Your task to perform on an android device: toggle priority inbox in the gmail app Image 0: 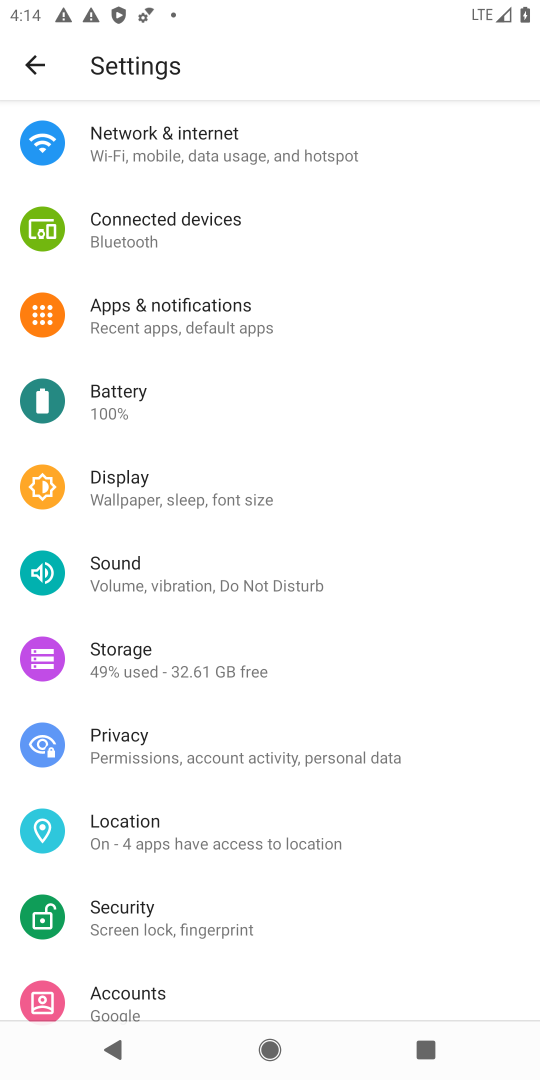
Step 0: drag from (154, 208) to (134, 1018)
Your task to perform on an android device: toggle priority inbox in the gmail app Image 1: 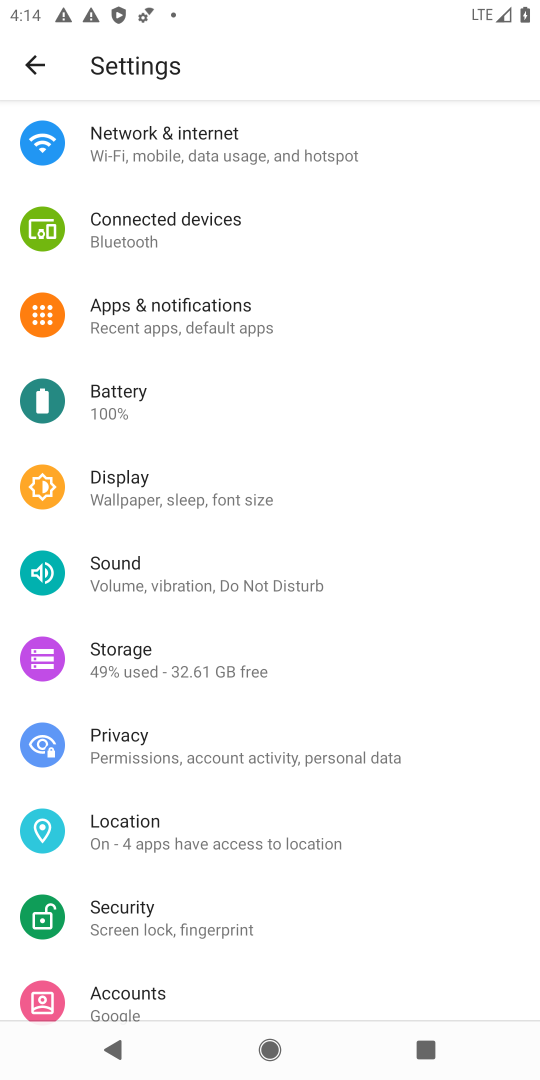
Step 1: press home button
Your task to perform on an android device: toggle priority inbox in the gmail app Image 2: 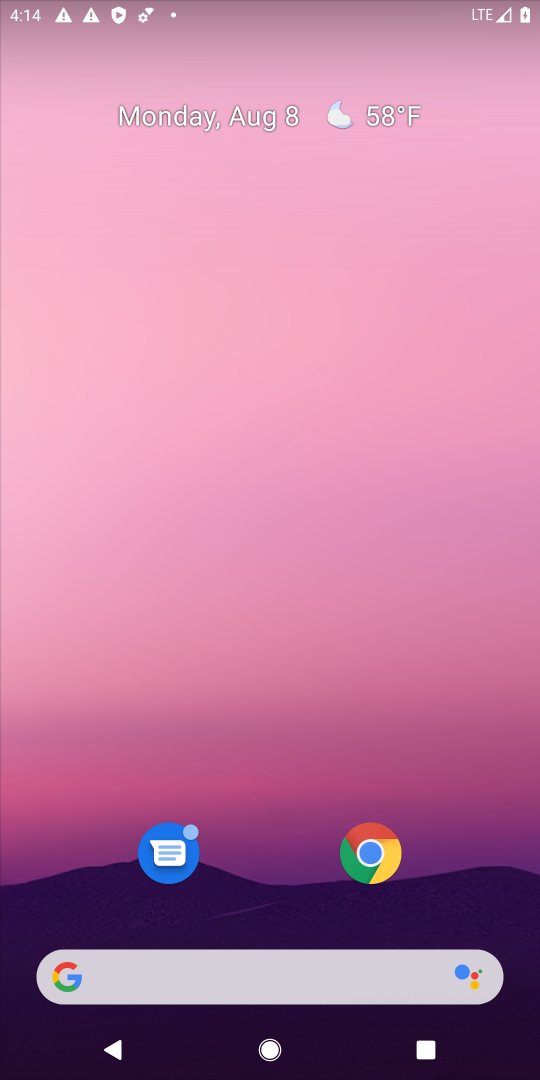
Step 2: drag from (435, 886) to (374, 121)
Your task to perform on an android device: toggle priority inbox in the gmail app Image 3: 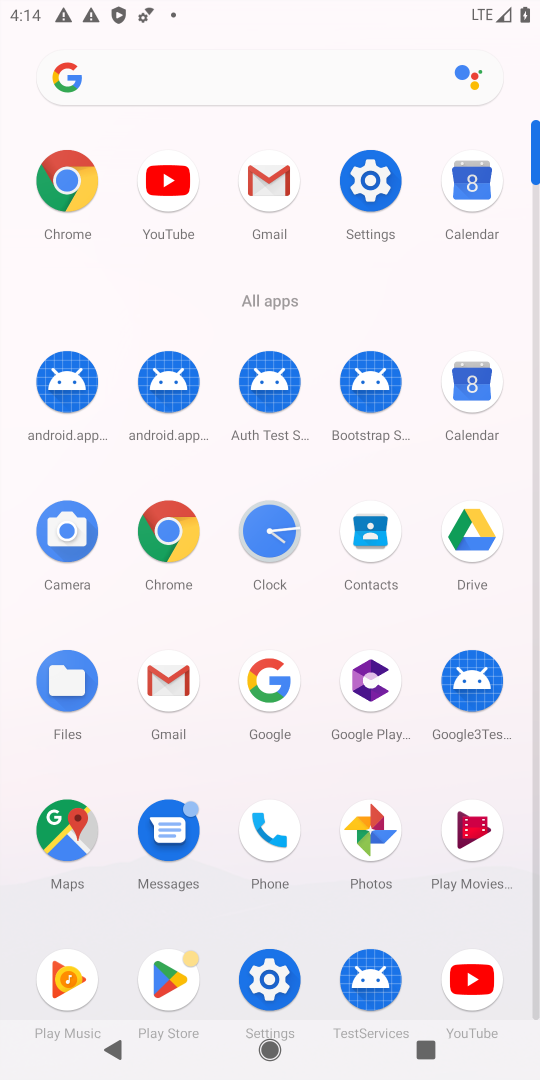
Step 3: click (159, 681)
Your task to perform on an android device: toggle priority inbox in the gmail app Image 4: 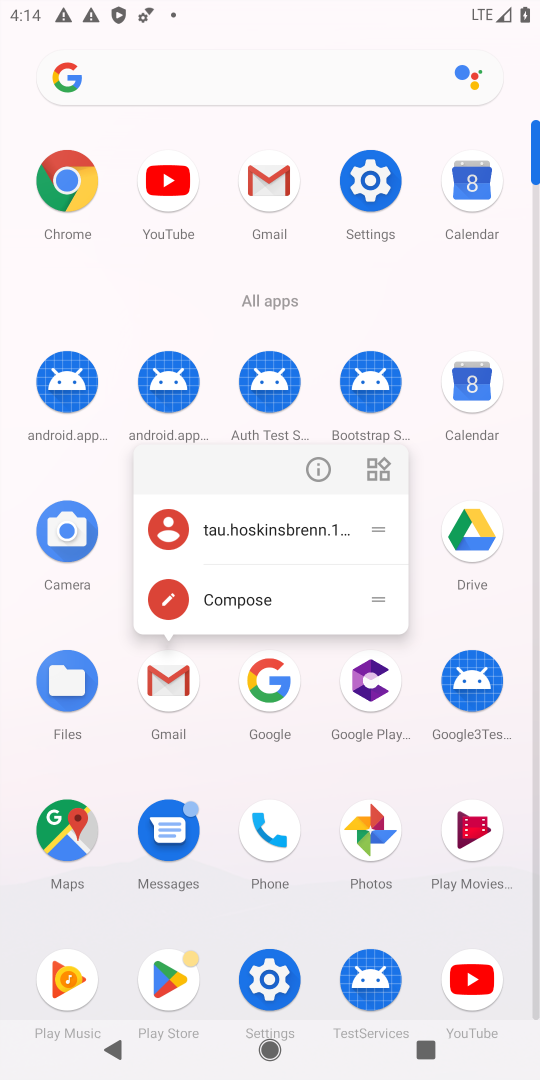
Step 4: click (161, 673)
Your task to perform on an android device: toggle priority inbox in the gmail app Image 5: 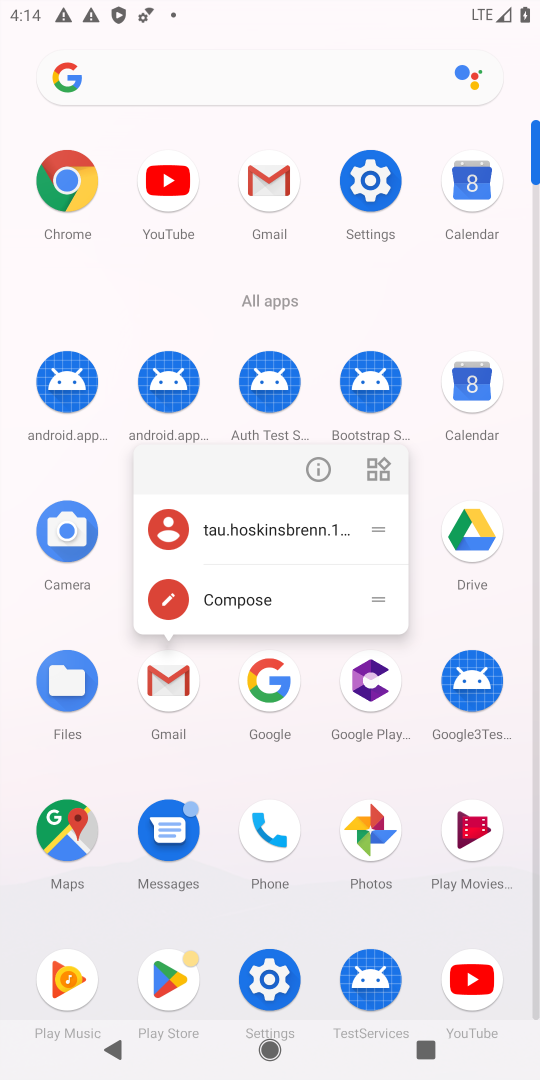
Step 5: click (161, 673)
Your task to perform on an android device: toggle priority inbox in the gmail app Image 6: 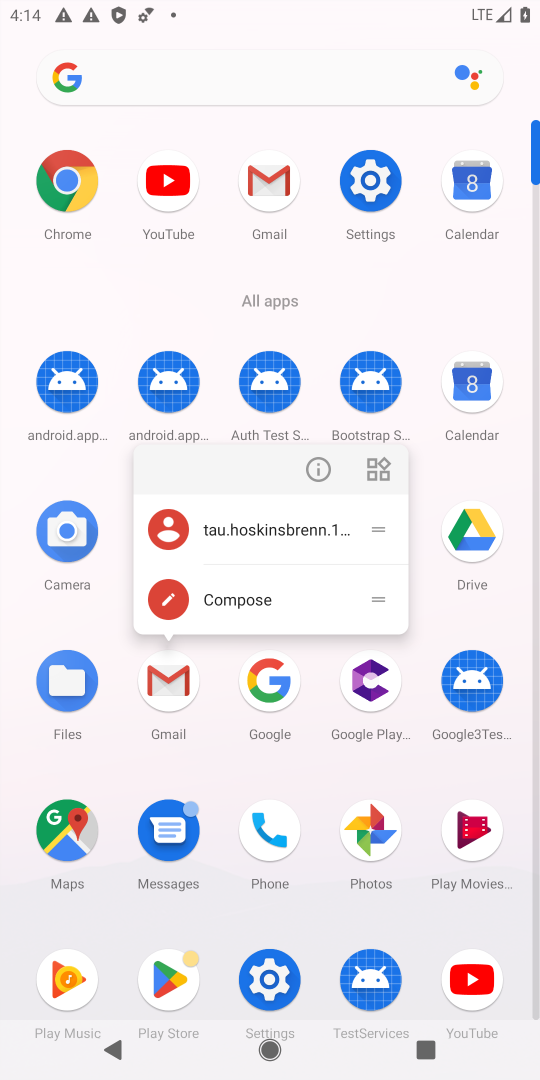
Step 6: click (161, 673)
Your task to perform on an android device: toggle priority inbox in the gmail app Image 7: 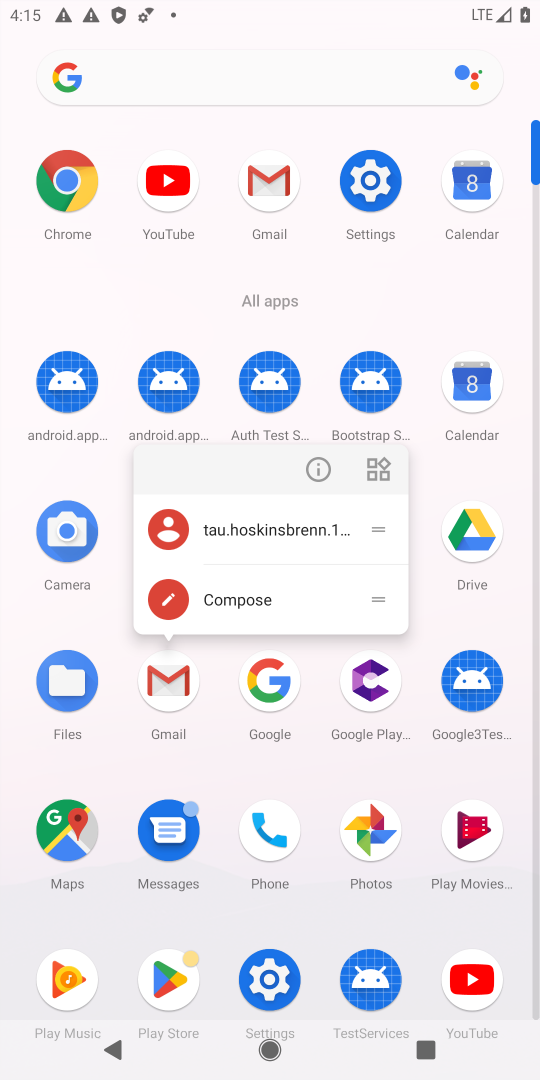
Step 7: click (161, 673)
Your task to perform on an android device: toggle priority inbox in the gmail app Image 8: 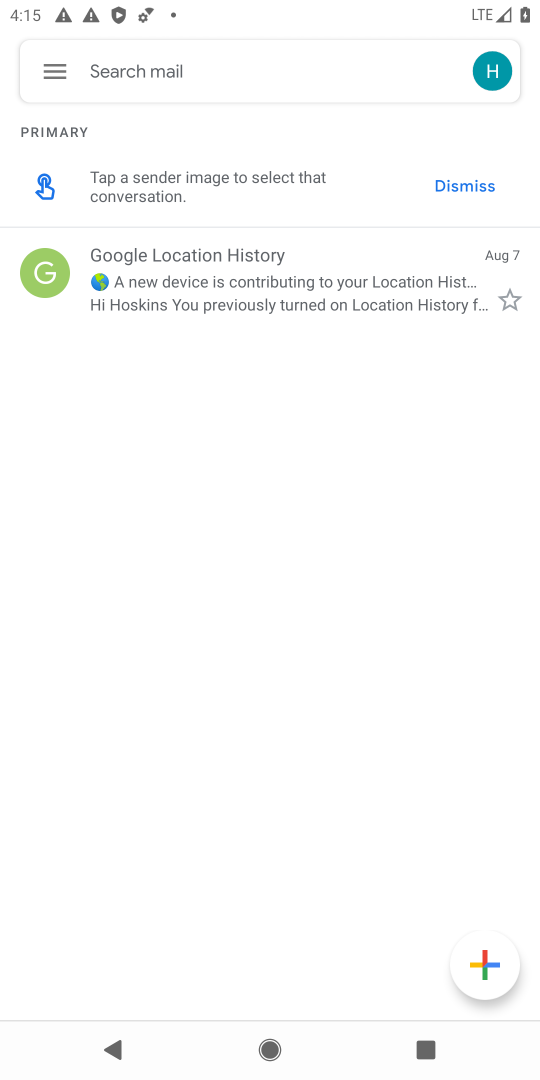
Step 8: click (56, 66)
Your task to perform on an android device: toggle priority inbox in the gmail app Image 9: 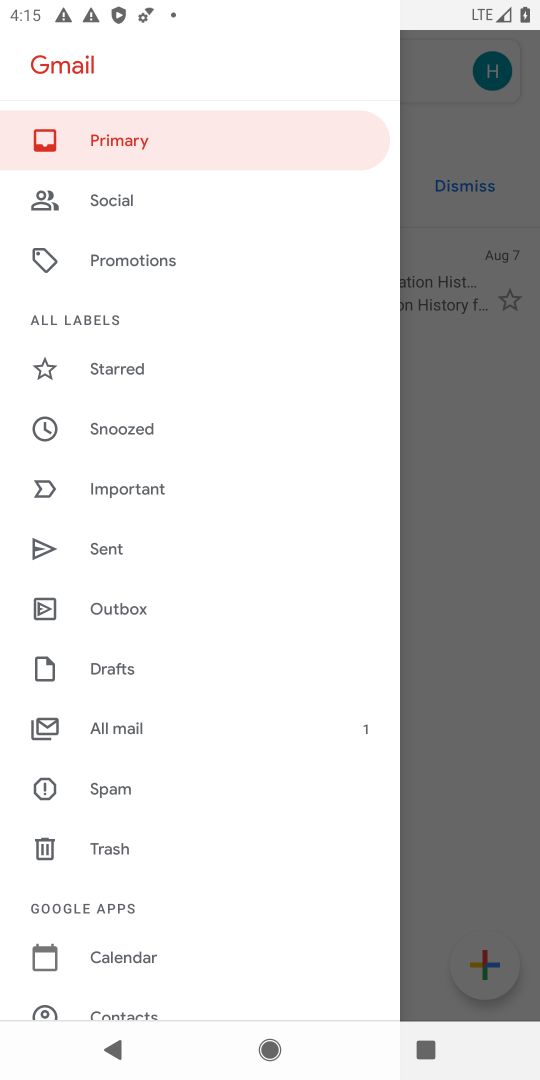
Step 9: drag from (146, 952) to (201, 408)
Your task to perform on an android device: toggle priority inbox in the gmail app Image 10: 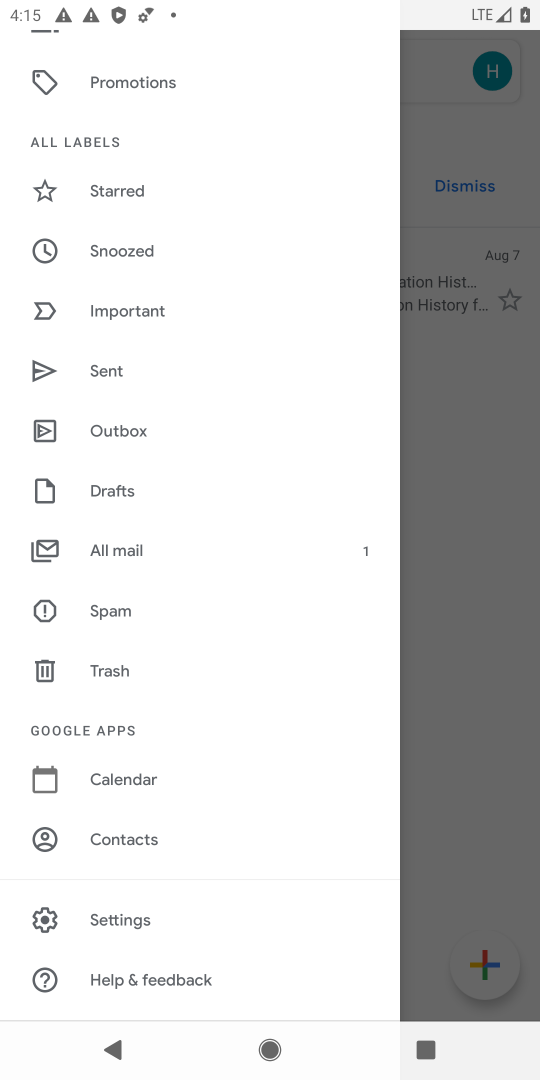
Step 10: click (104, 955)
Your task to perform on an android device: toggle priority inbox in the gmail app Image 11: 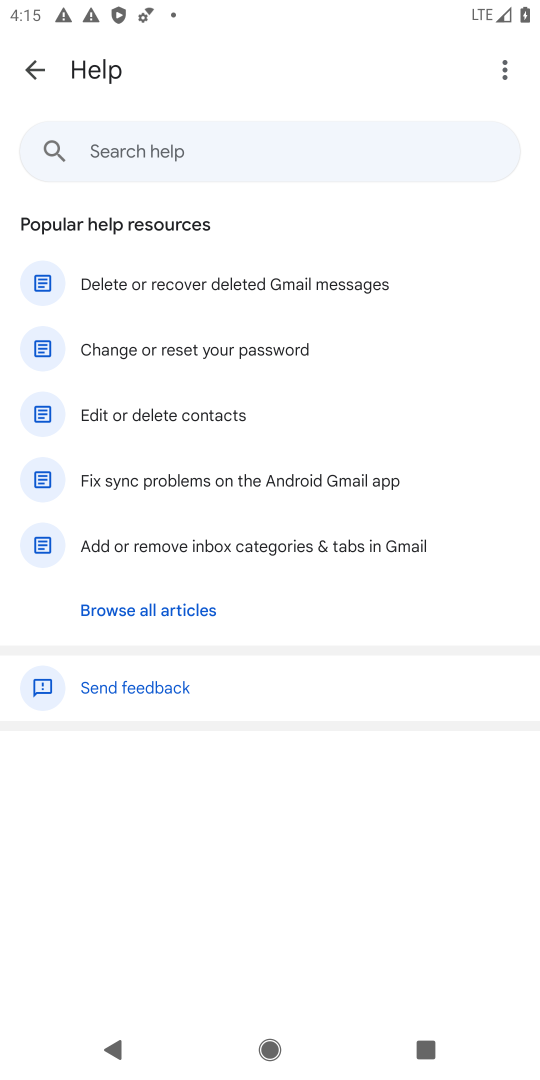
Step 11: click (46, 61)
Your task to perform on an android device: toggle priority inbox in the gmail app Image 12: 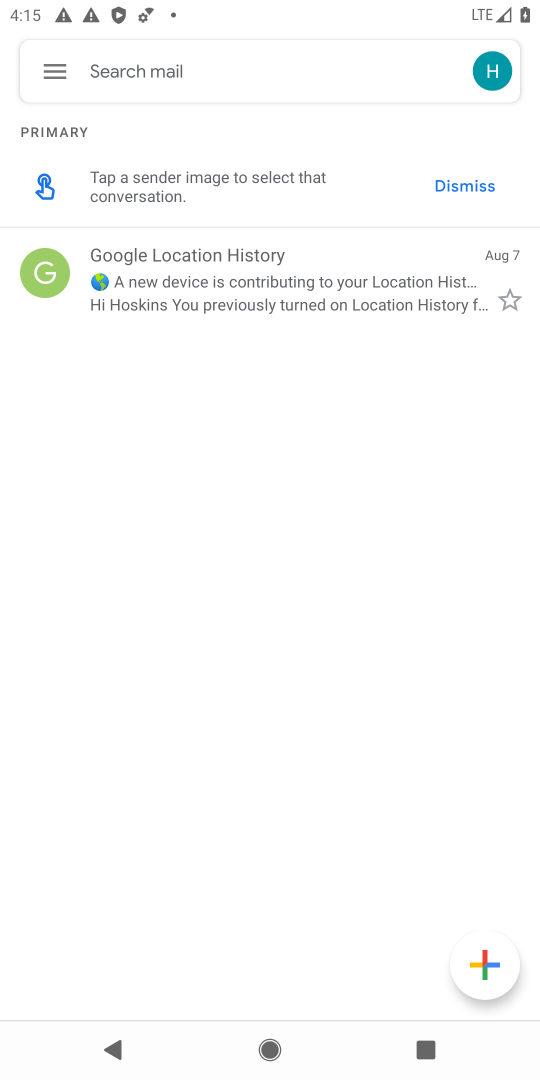
Step 12: click (65, 59)
Your task to perform on an android device: toggle priority inbox in the gmail app Image 13: 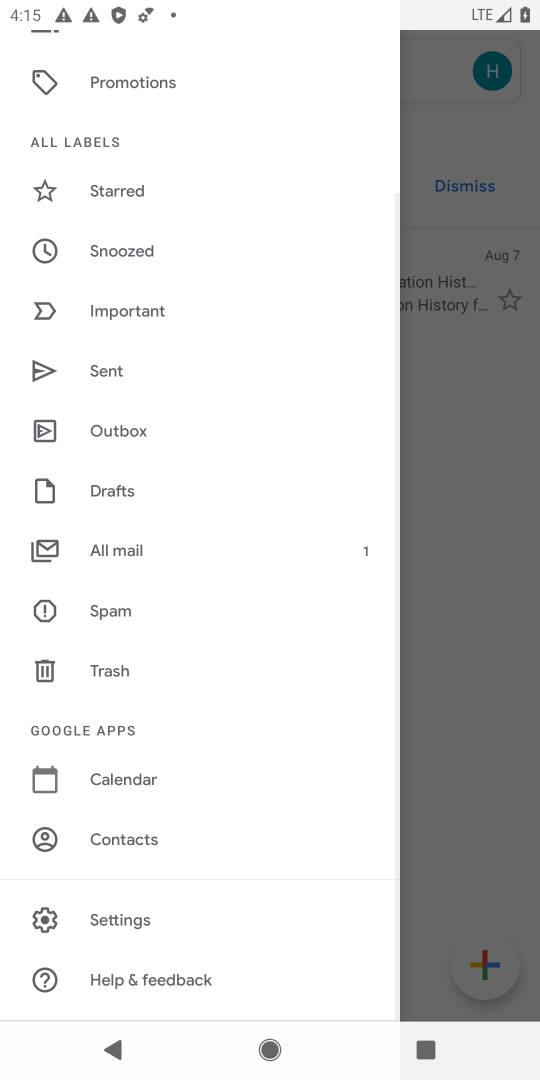
Step 13: drag from (207, 897) to (193, 479)
Your task to perform on an android device: toggle priority inbox in the gmail app Image 14: 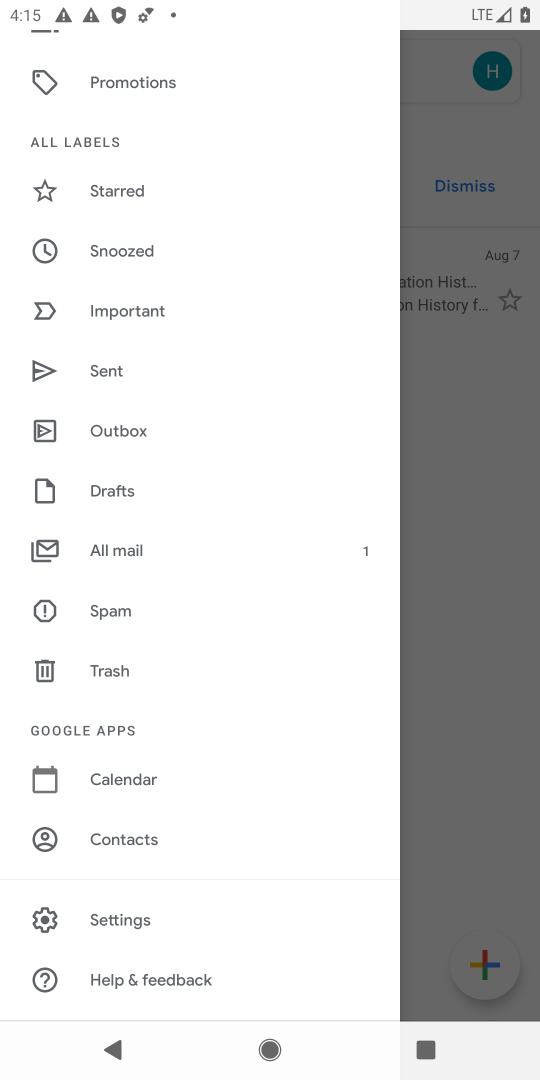
Step 14: click (114, 916)
Your task to perform on an android device: toggle priority inbox in the gmail app Image 15: 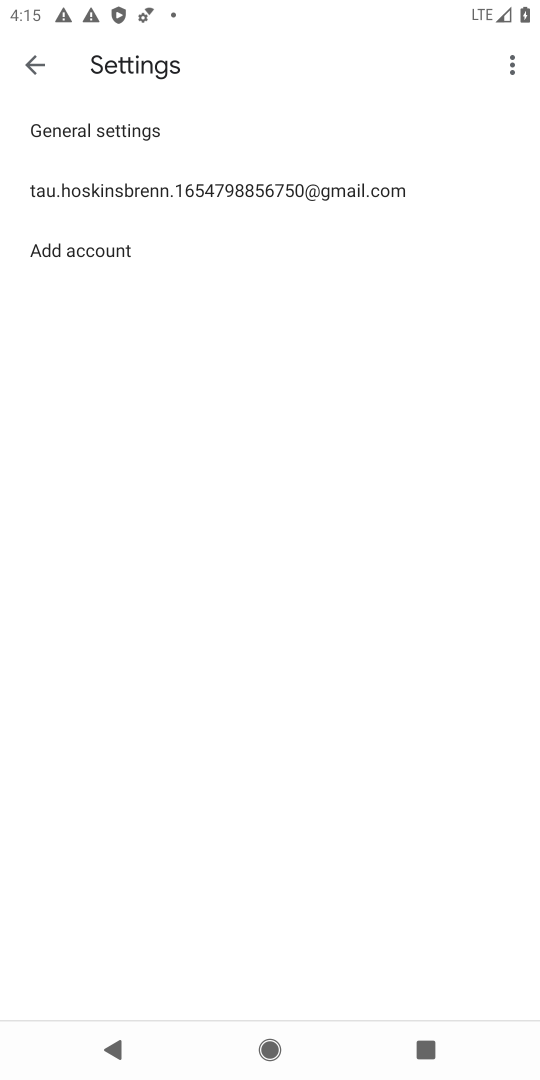
Step 15: click (187, 177)
Your task to perform on an android device: toggle priority inbox in the gmail app Image 16: 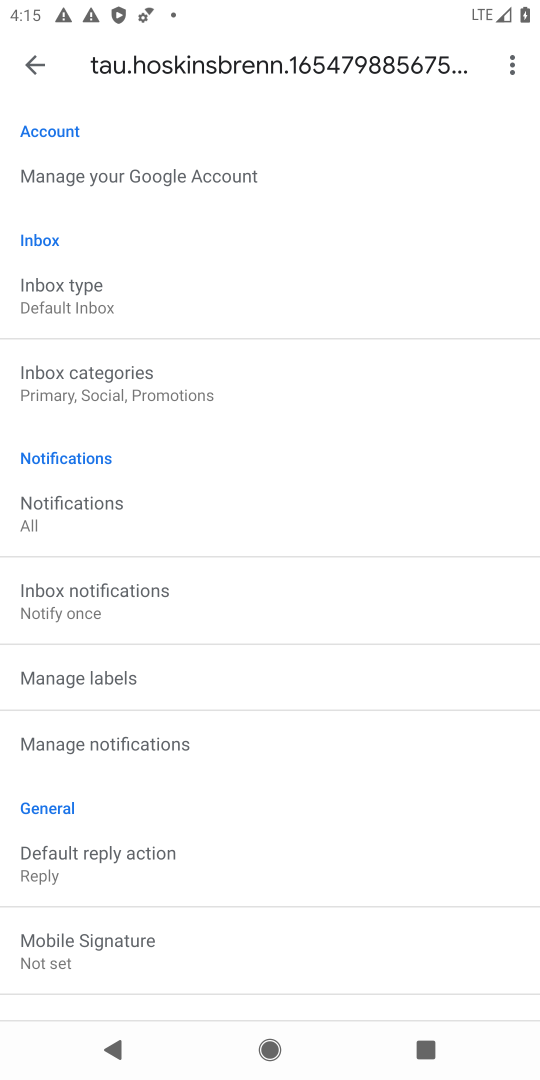
Step 16: drag from (123, 372) to (434, 305)
Your task to perform on an android device: toggle priority inbox in the gmail app Image 17: 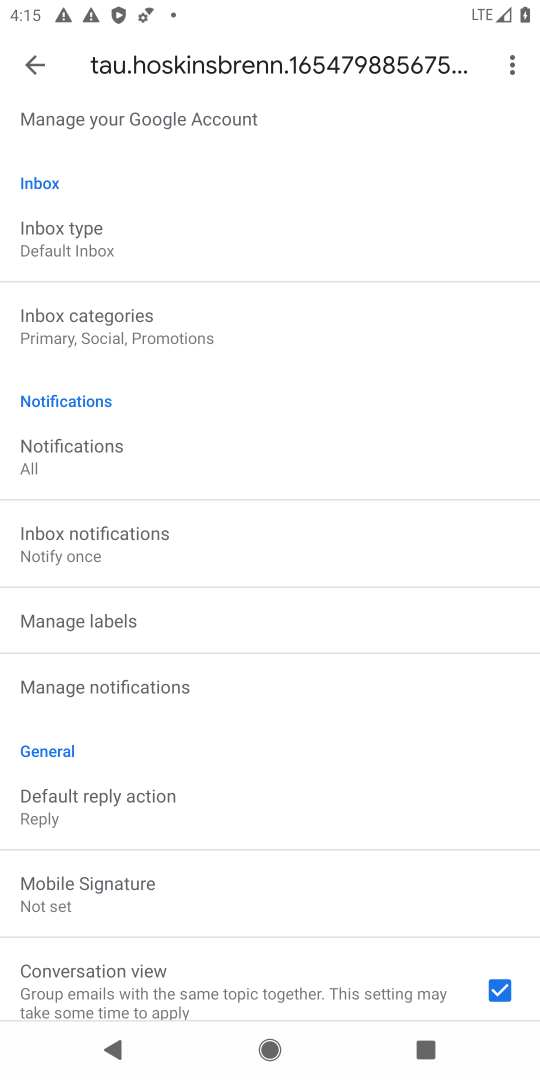
Step 17: click (107, 241)
Your task to perform on an android device: toggle priority inbox in the gmail app Image 18: 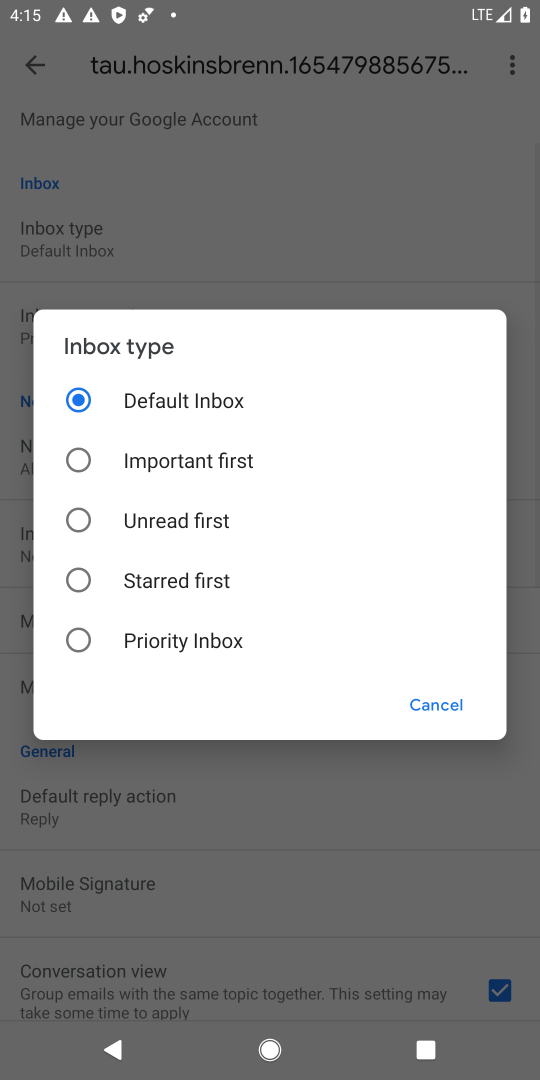
Step 18: click (181, 631)
Your task to perform on an android device: toggle priority inbox in the gmail app Image 19: 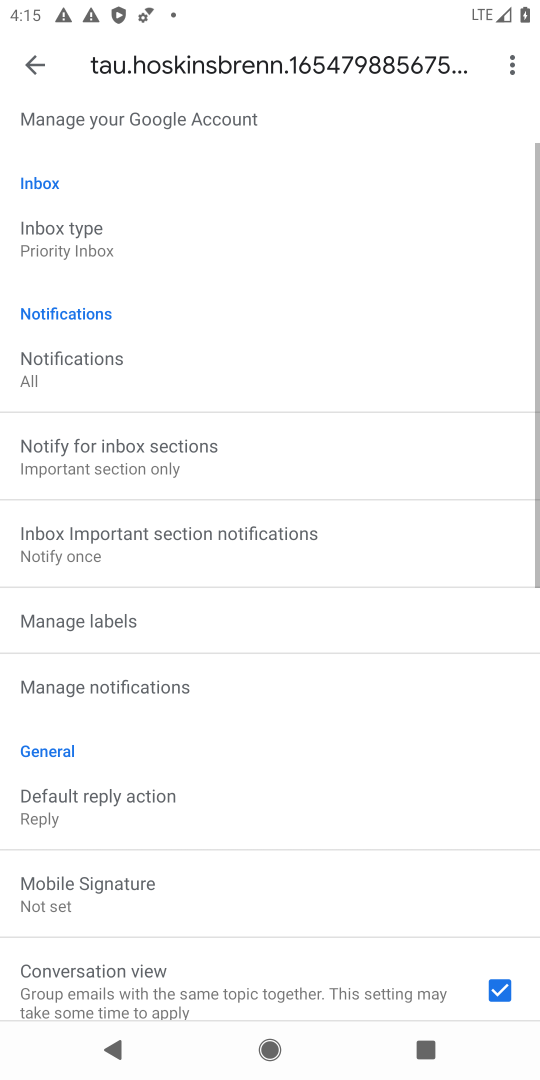
Step 19: task complete